Your task to perform on an android device: all mails in gmail Image 0: 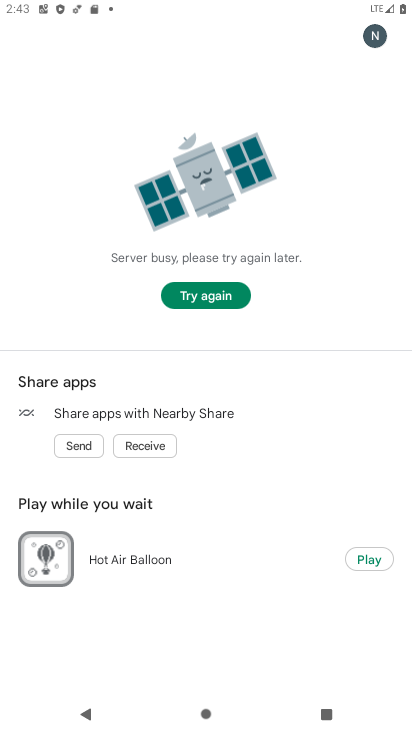
Step 0: press home button
Your task to perform on an android device: all mails in gmail Image 1: 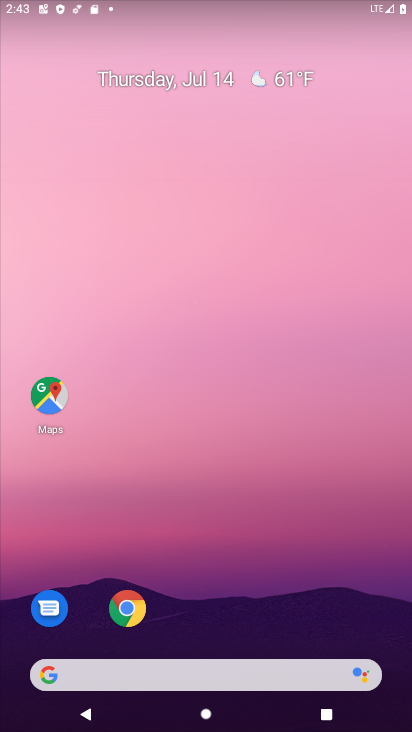
Step 1: drag from (144, 663) to (202, 129)
Your task to perform on an android device: all mails in gmail Image 2: 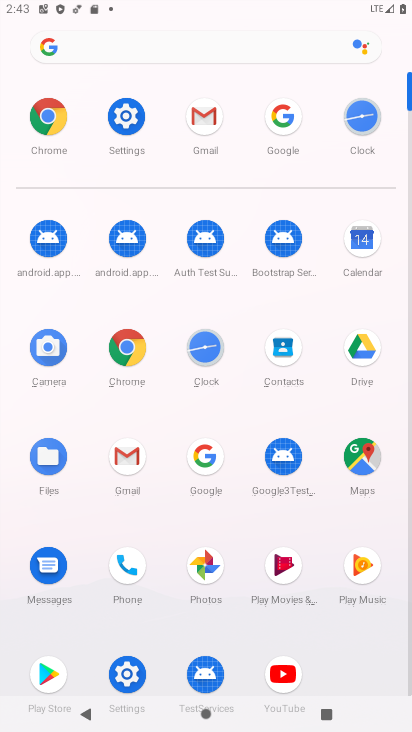
Step 2: click (128, 464)
Your task to perform on an android device: all mails in gmail Image 3: 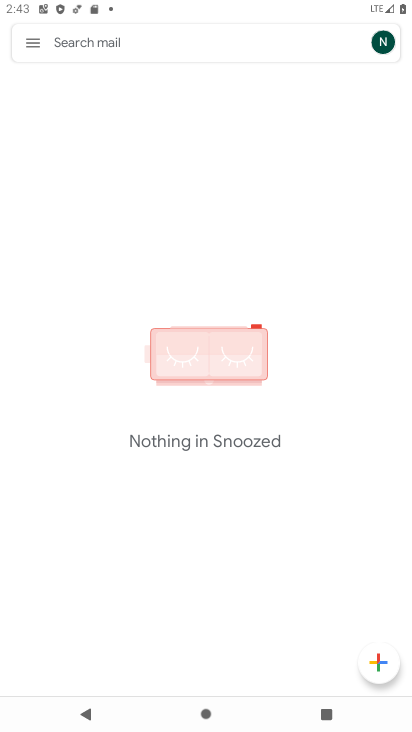
Step 3: click (35, 47)
Your task to perform on an android device: all mails in gmail Image 4: 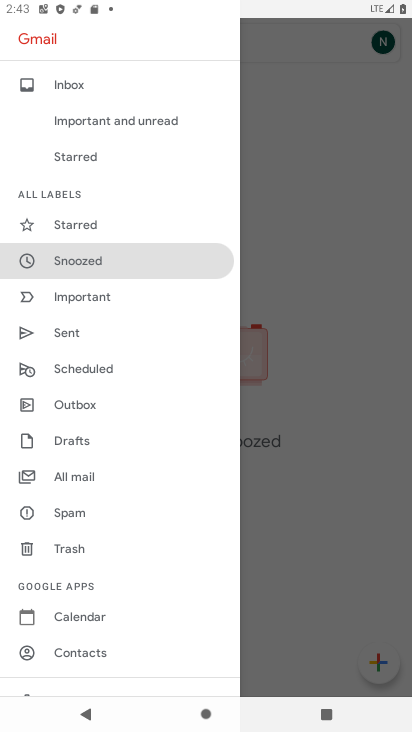
Step 4: click (68, 473)
Your task to perform on an android device: all mails in gmail Image 5: 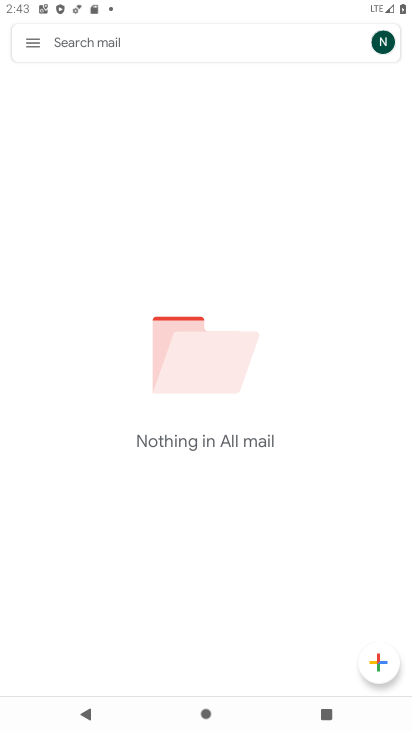
Step 5: task complete